Your task to perform on an android device: turn off location Image 0: 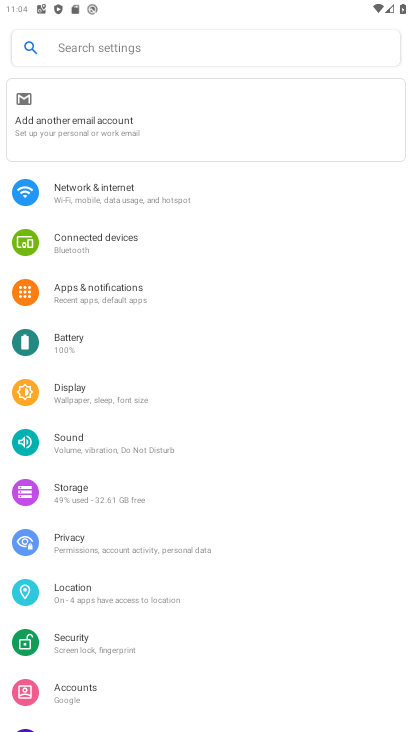
Step 0: click (71, 602)
Your task to perform on an android device: turn off location Image 1: 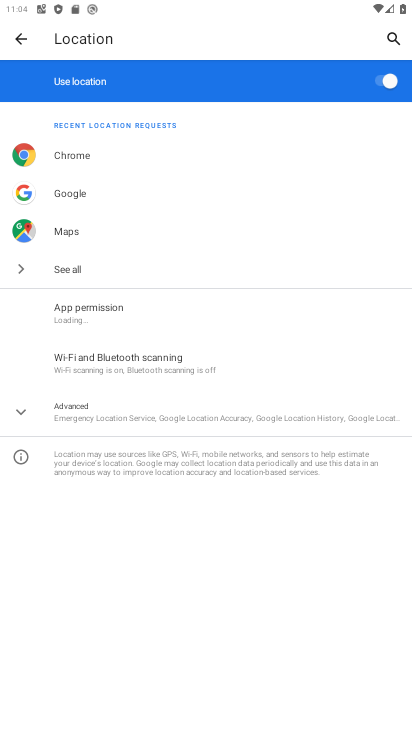
Step 1: click (388, 86)
Your task to perform on an android device: turn off location Image 2: 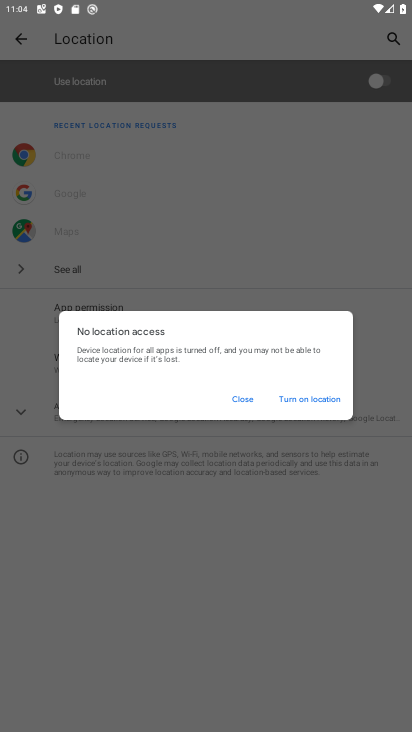
Step 2: click (233, 404)
Your task to perform on an android device: turn off location Image 3: 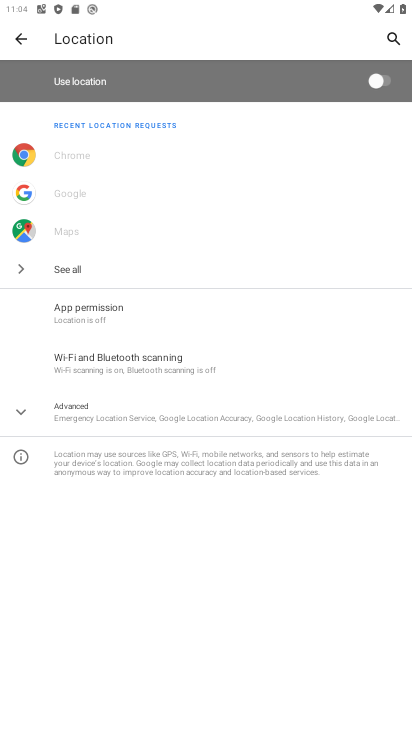
Step 3: task complete